Your task to perform on an android device: check data usage Image 0: 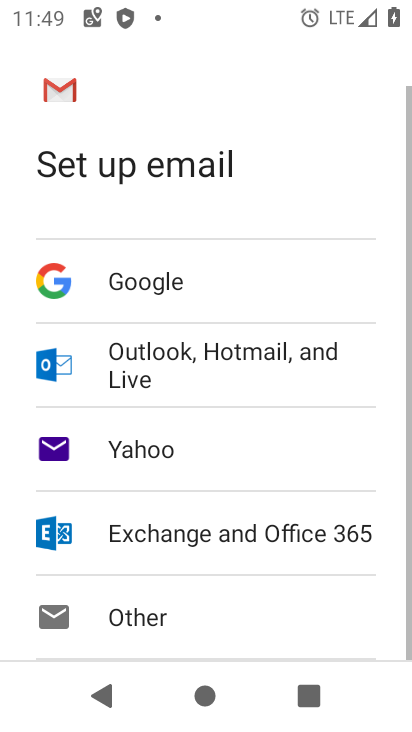
Step 0: drag from (253, 537) to (293, 125)
Your task to perform on an android device: check data usage Image 1: 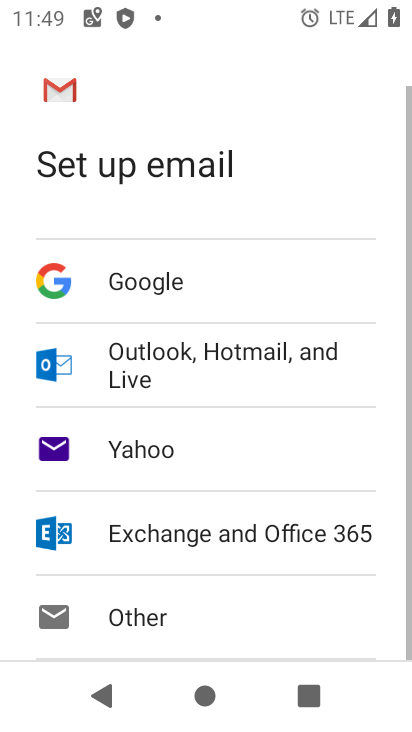
Step 1: press home button
Your task to perform on an android device: check data usage Image 2: 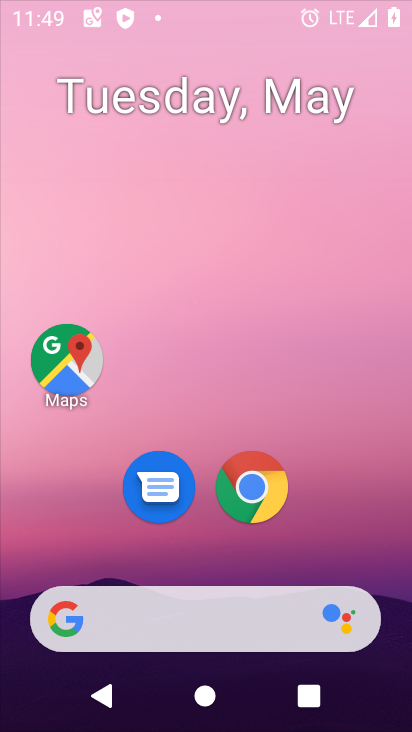
Step 2: drag from (165, 608) to (214, 163)
Your task to perform on an android device: check data usage Image 3: 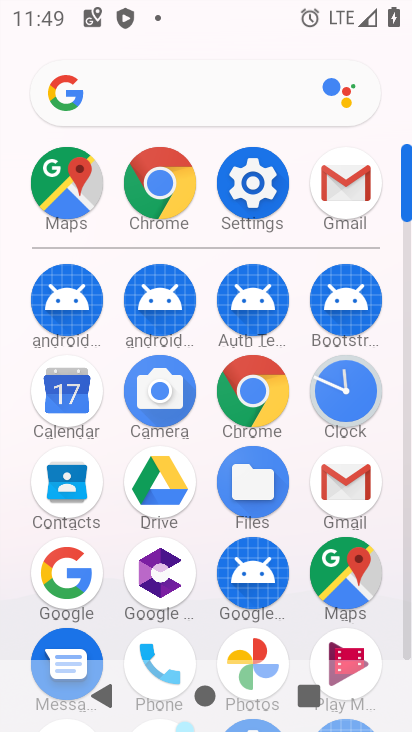
Step 3: click (246, 196)
Your task to perform on an android device: check data usage Image 4: 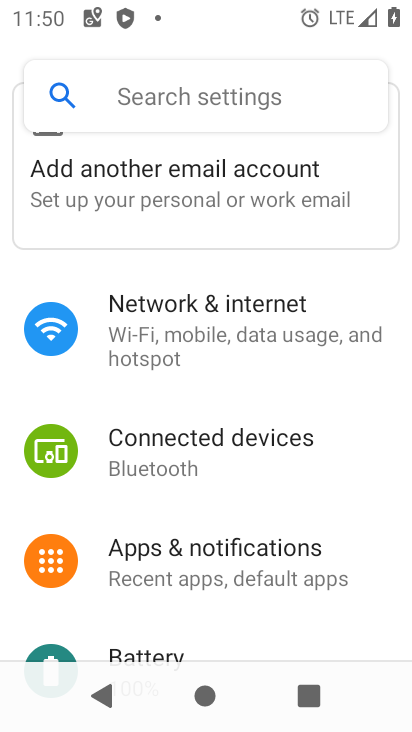
Step 4: drag from (254, 553) to (282, 283)
Your task to perform on an android device: check data usage Image 5: 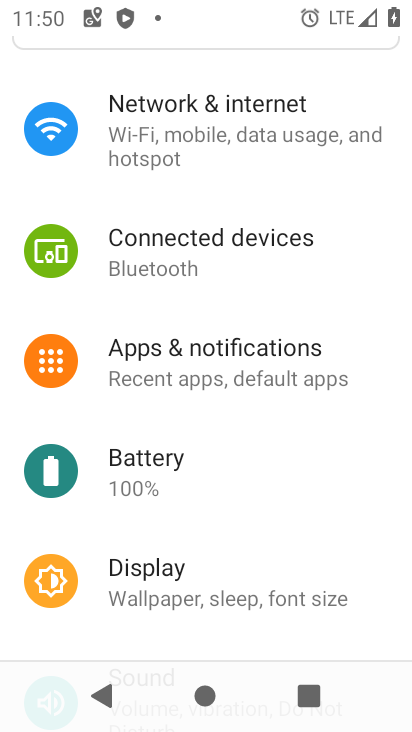
Step 5: drag from (253, 522) to (259, 259)
Your task to perform on an android device: check data usage Image 6: 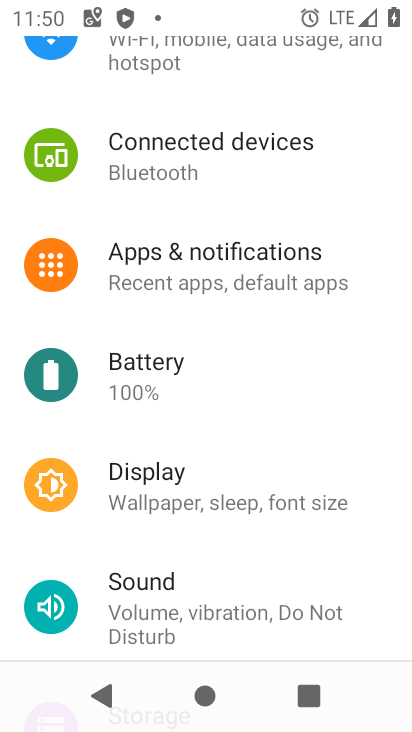
Step 6: drag from (251, 174) to (283, 636)
Your task to perform on an android device: check data usage Image 7: 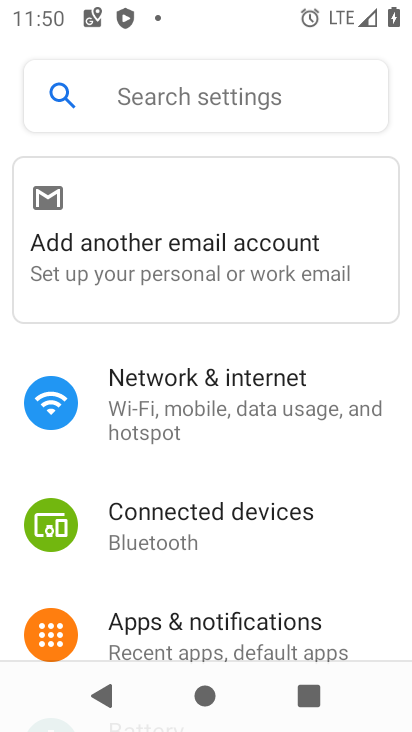
Step 7: click (227, 377)
Your task to perform on an android device: check data usage Image 8: 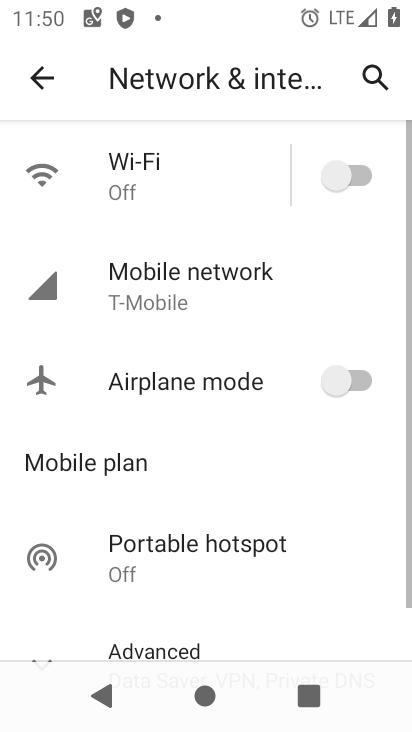
Step 8: click (245, 302)
Your task to perform on an android device: check data usage Image 9: 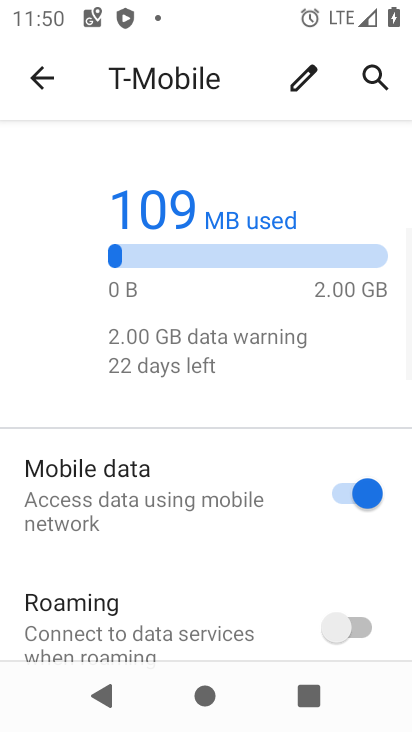
Step 9: task complete